Your task to perform on an android device: Turn off the flashlight Image 0: 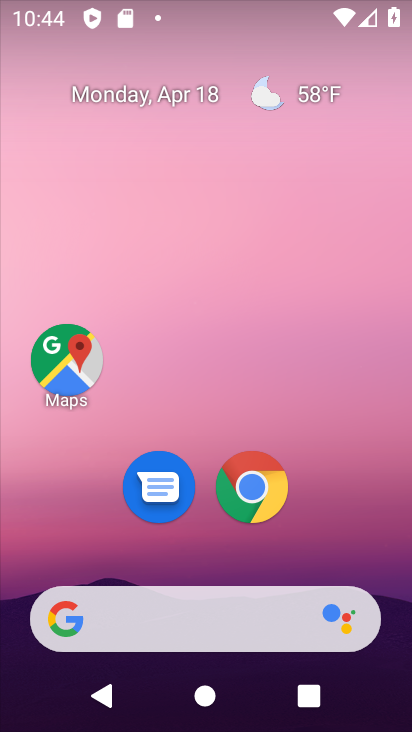
Step 0: drag from (331, 6) to (316, 508)
Your task to perform on an android device: Turn off the flashlight Image 1: 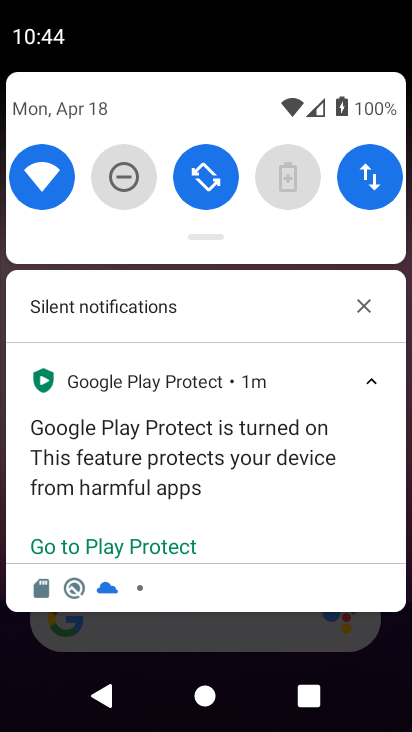
Step 1: drag from (218, 226) to (254, 529)
Your task to perform on an android device: Turn off the flashlight Image 2: 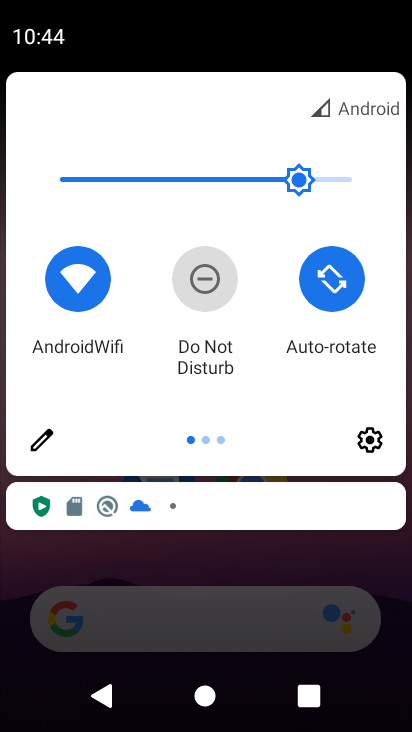
Step 2: click (43, 437)
Your task to perform on an android device: Turn off the flashlight Image 3: 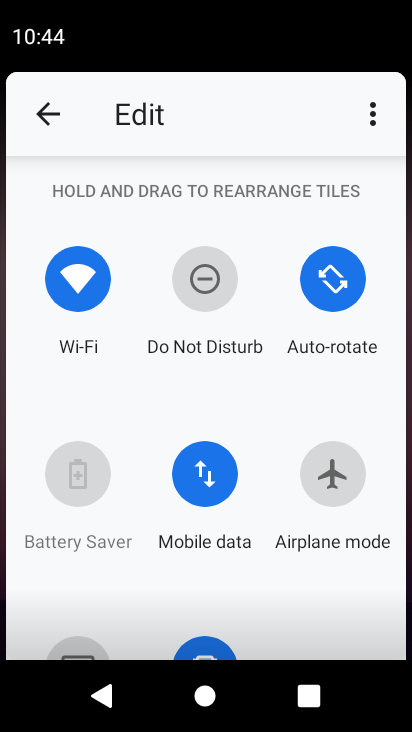
Step 3: task complete